Your task to perform on an android device: Search for vegetarian restaurants on Maps Image 0: 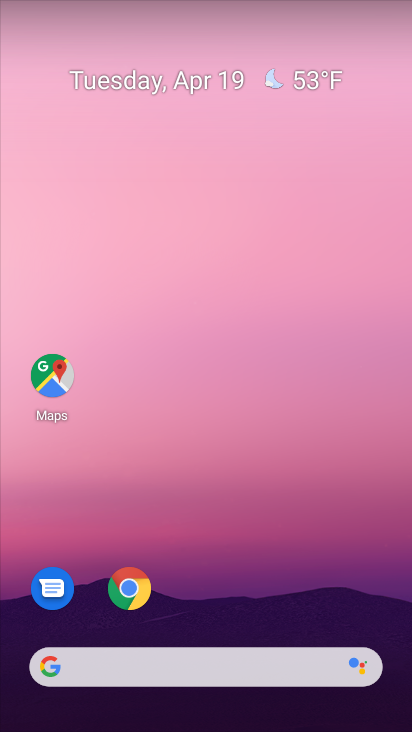
Step 0: click (51, 378)
Your task to perform on an android device: Search for vegetarian restaurants on Maps Image 1: 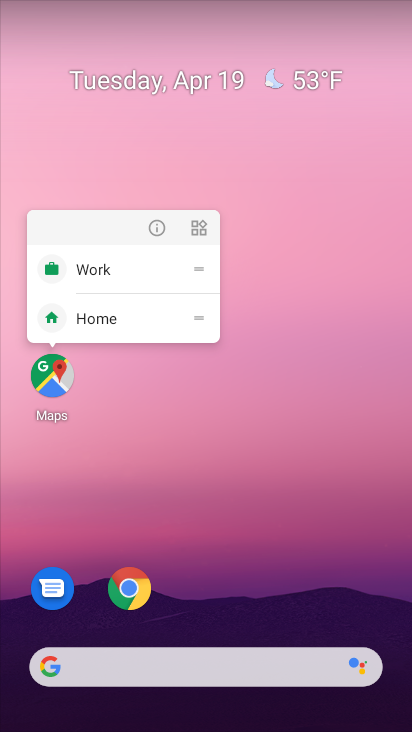
Step 1: click (51, 378)
Your task to perform on an android device: Search for vegetarian restaurants on Maps Image 2: 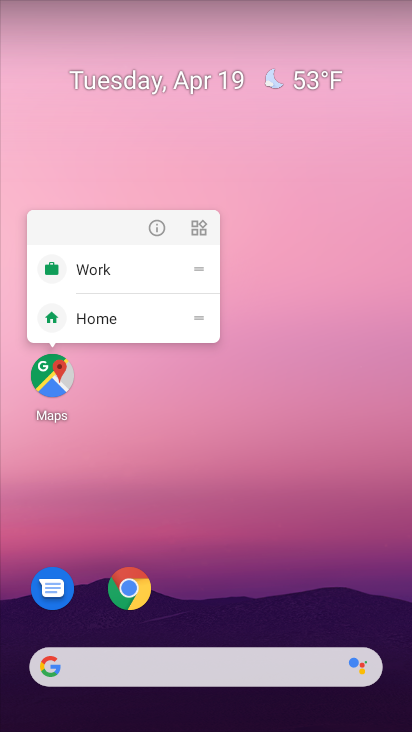
Step 2: click (51, 378)
Your task to perform on an android device: Search for vegetarian restaurants on Maps Image 3: 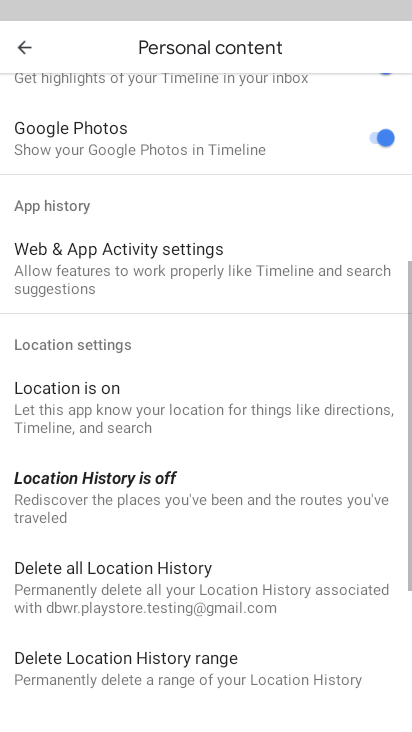
Step 3: press back button
Your task to perform on an android device: Search for vegetarian restaurants on Maps Image 4: 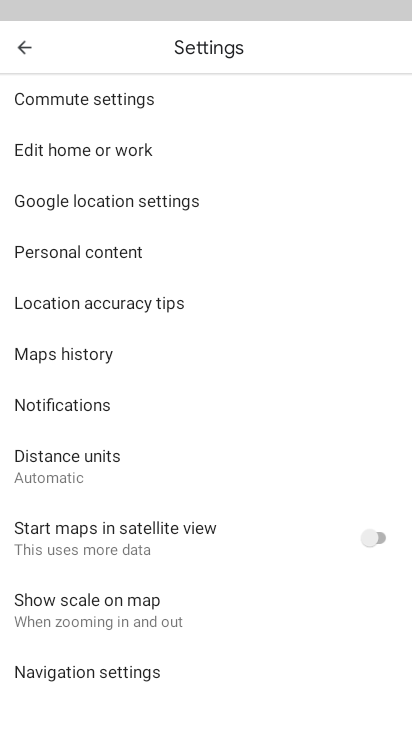
Step 4: press back button
Your task to perform on an android device: Search for vegetarian restaurants on Maps Image 5: 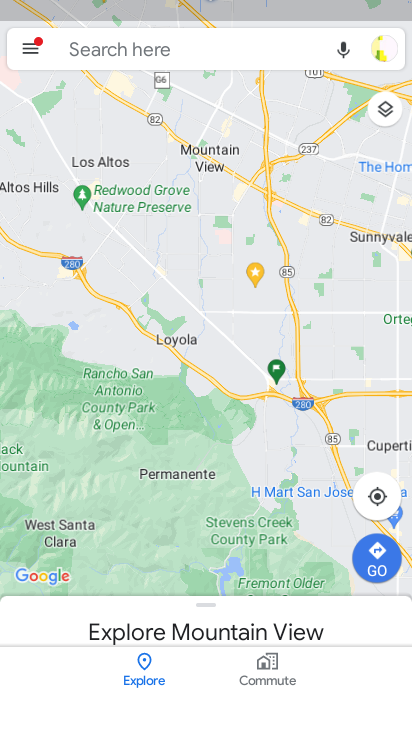
Step 5: click (204, 41)
Your task to perform on an android device: Search for vegetarian restaurants on Maps Image 6: 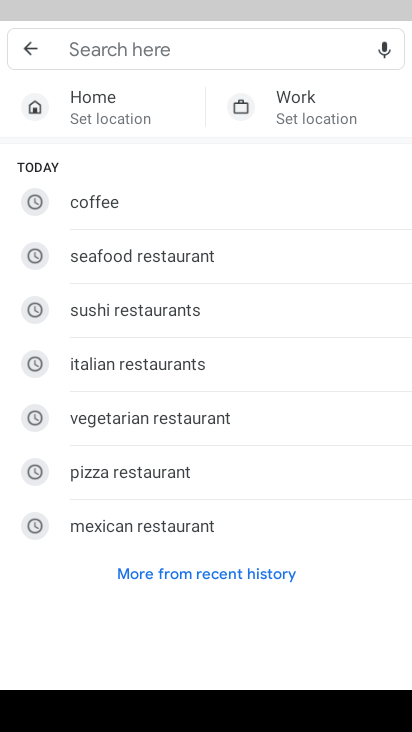
Step 6: type "vegetarian restaurants"
Your task to perform on an android device: Search for vegetarian restaurants on Maps Image 7: 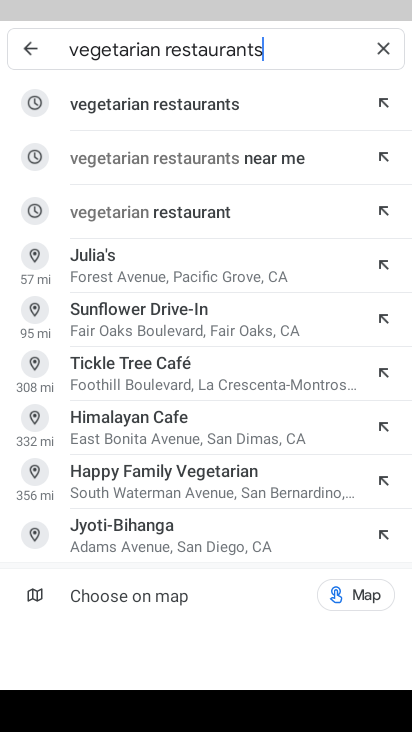
Step 7: click (198, 107)
Your task to perform on an android device: Search for vegetarian restaurants on Maps Image 8: 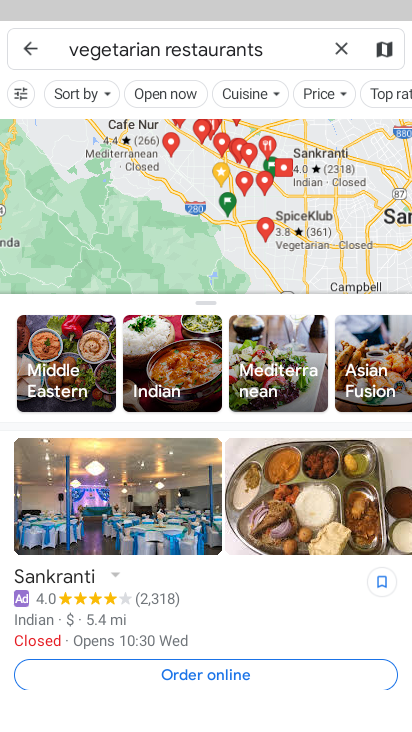
Step 8: task complete